Your task to perform on an android device: Empty the shopping cart on target. Search for bose soundlink mini on target, select the first entry, add it to the cart, then select checkout. Image 0: 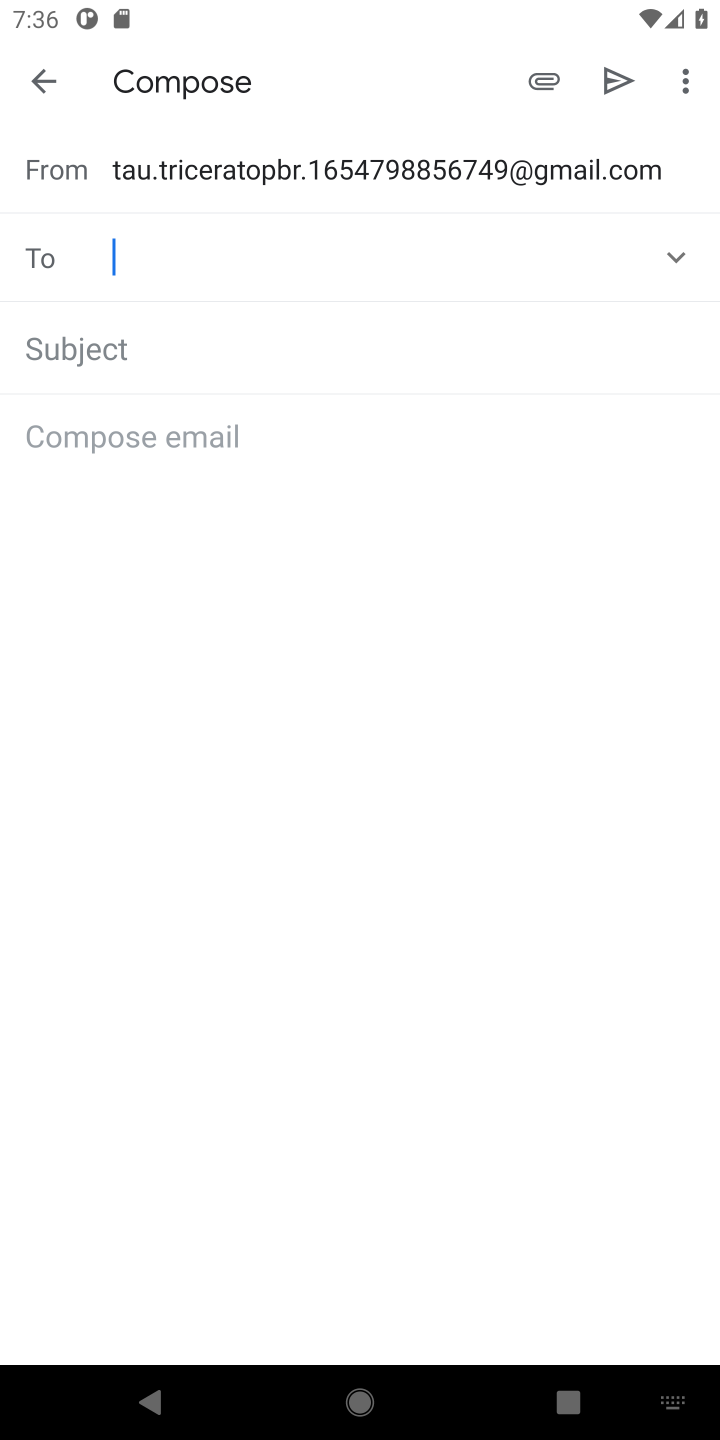
Step 0: press home button
Your task to perform on an android device: Empty the shopping cart on target. Search for bose soundlink mini on target, select the first entry, add it to the cart, then select checkout. Image 1: 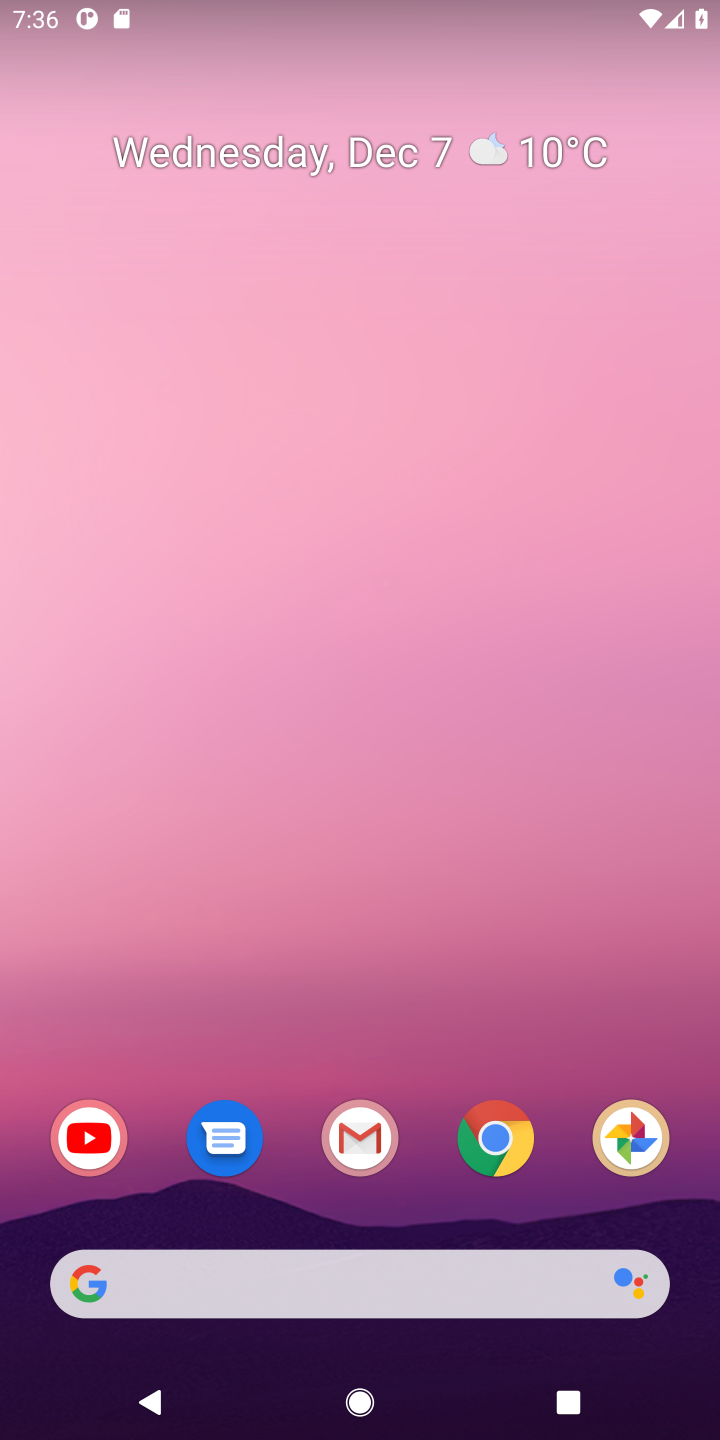
Step 1: click (147, 1287)
Your task to perform on an android device: Empty the shopping cart on target. Search for bose soundlink mini on target, select the first entry, add it to the cart, then select checkout. Image 2: 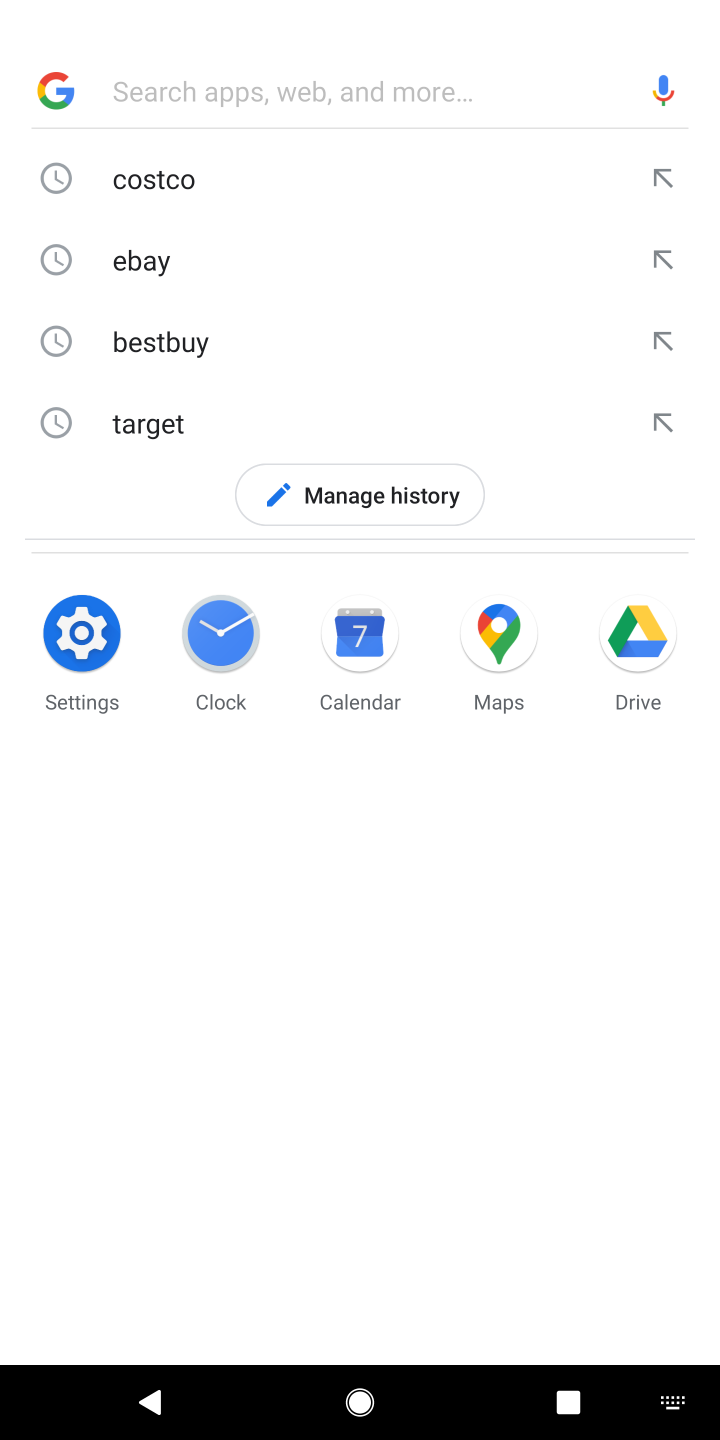
Step 2: type "target"
Your task to perform on an android device: Empty the shopping cart on target. Search for bose soundlink mini on target, select the first entry, add it to the cart, then select checkout. Image 3: 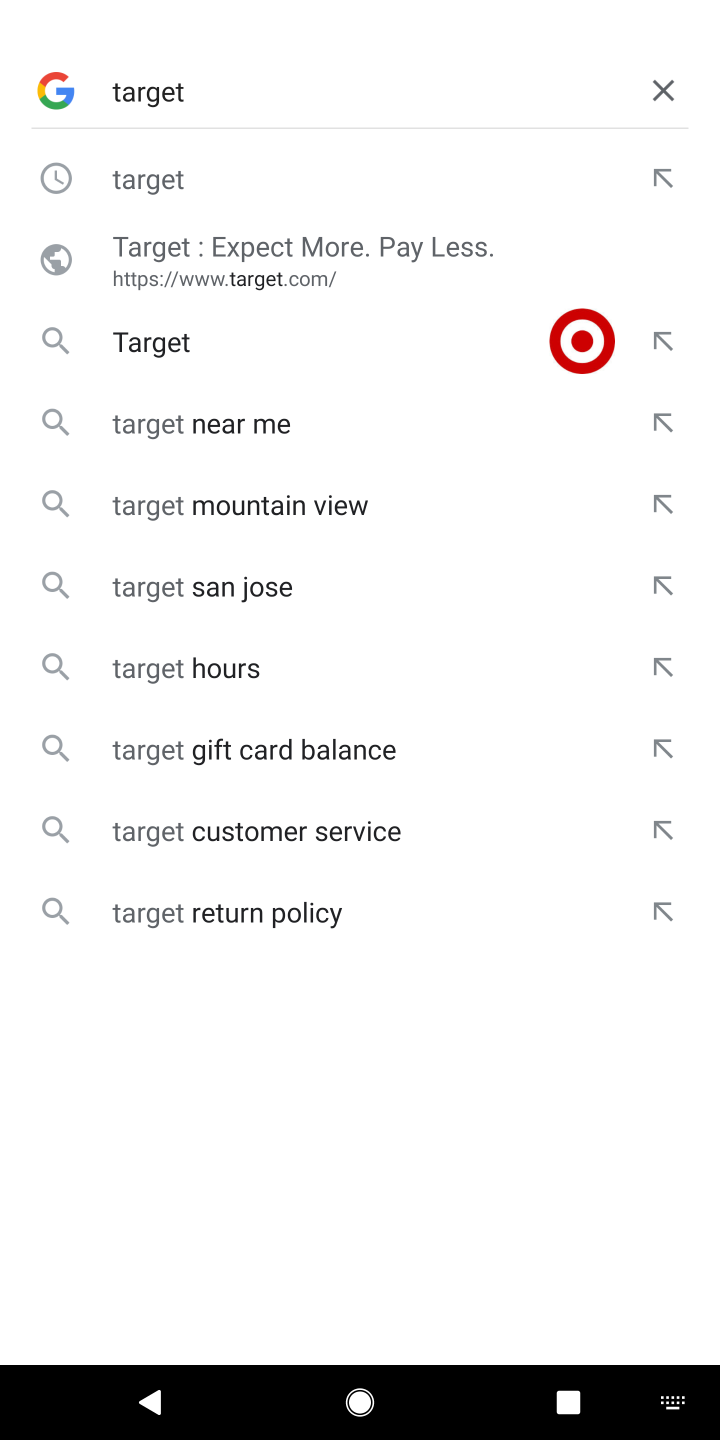
Step 3: press enter
Your task to perform on an android device: Empty the shopping cart on target. Search for bose soundlink mini on target, select the first entry, add it to the cart, then select checkout. Image 4: 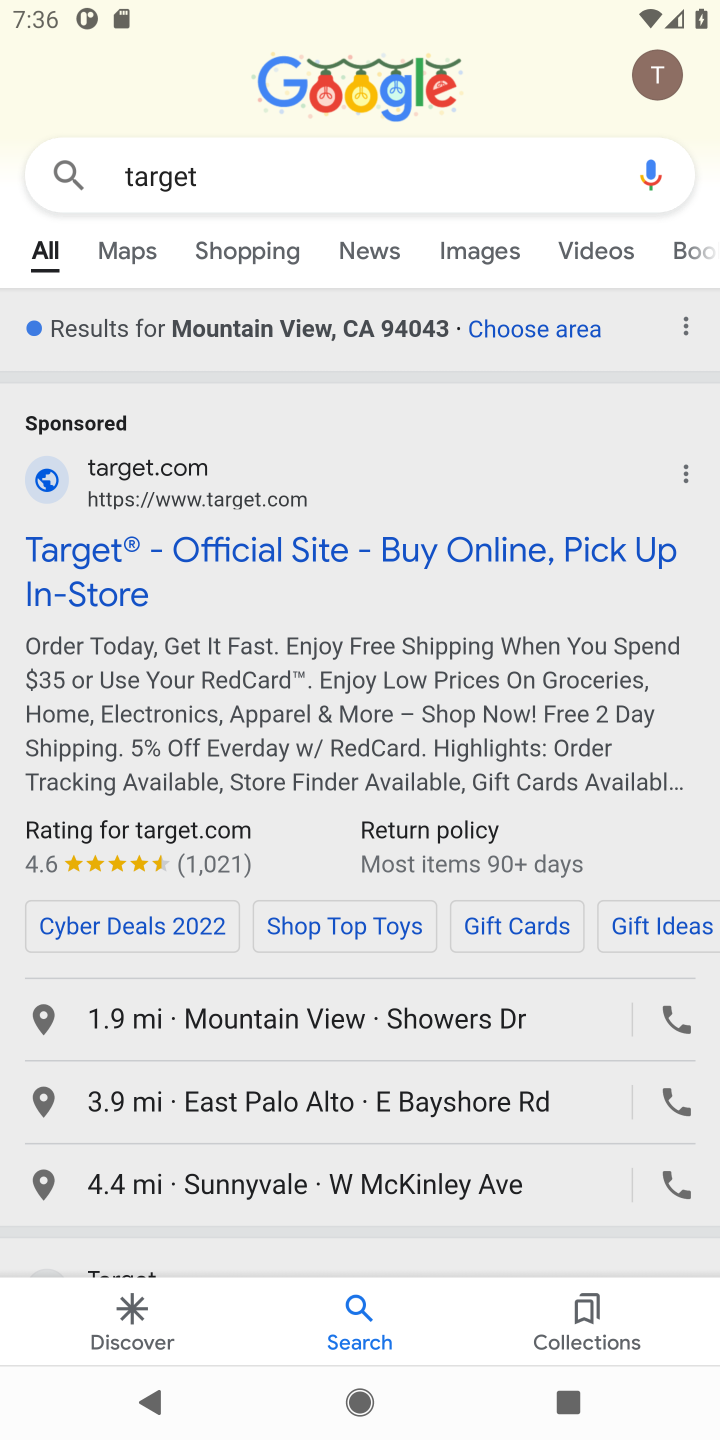
Step 4: click (345, 554)
Your task to perform on an android device: Empty the shopping cart on target. Search for bose soundlink mini on target, select the first entry, add it to the cart, then select checkout. Image 5: 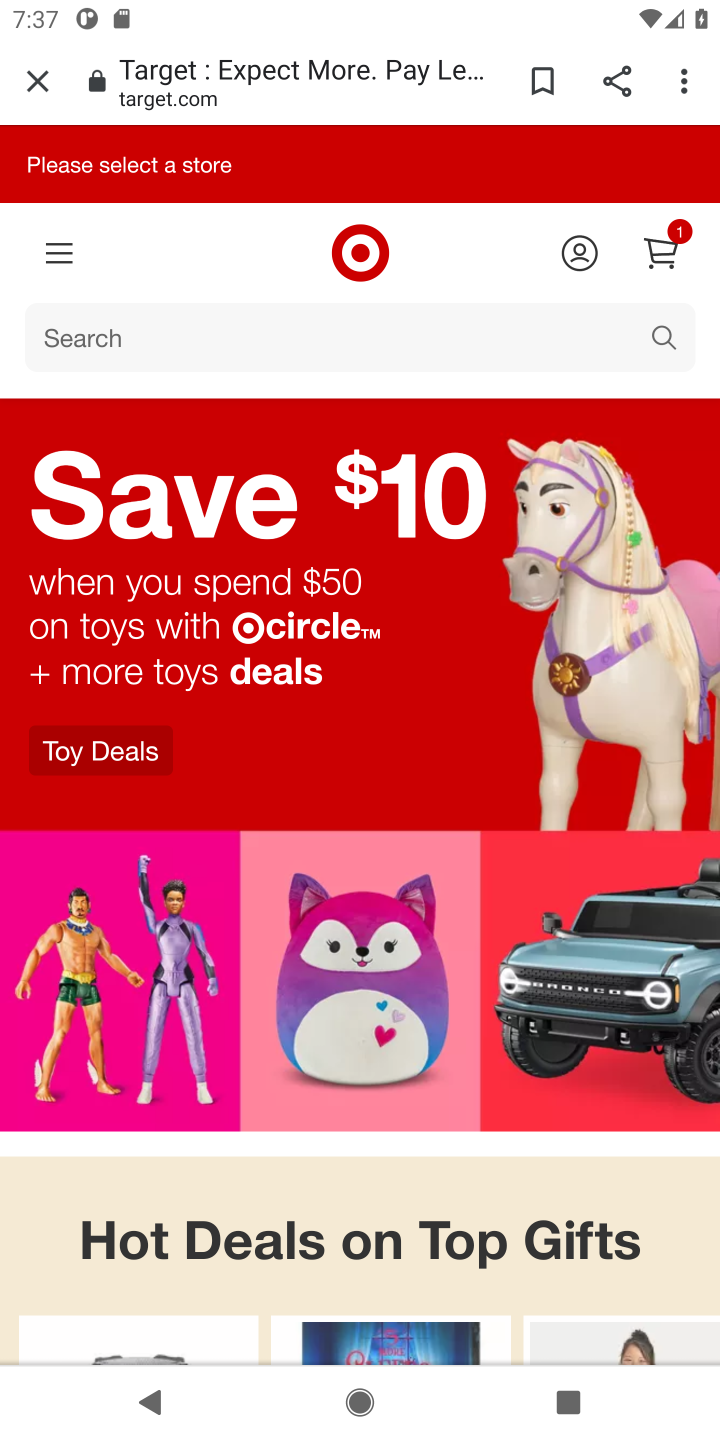
Step 5: click (660, 241)
Your task to perform on an android device: Empty the shopping cart on target. Search for bose soundlink mini on target, select the first entry, add it to the cart, then select checkout. Image 6: 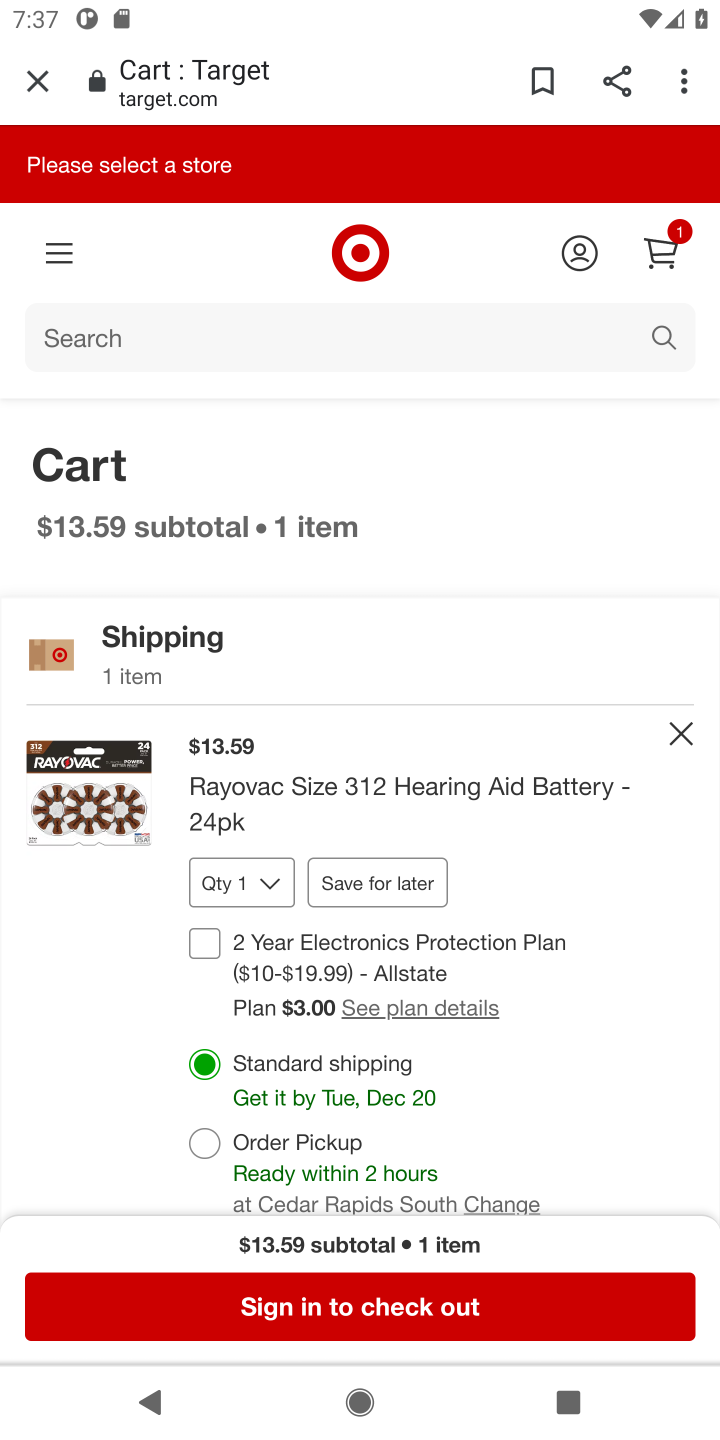
Step 6: click (681, 736)
Your task to perform on an android device: Empty the shopping cart on target. Search for bose soundlink mini on target, select the first entry, add it to the cart, then select checkout. Image 7: 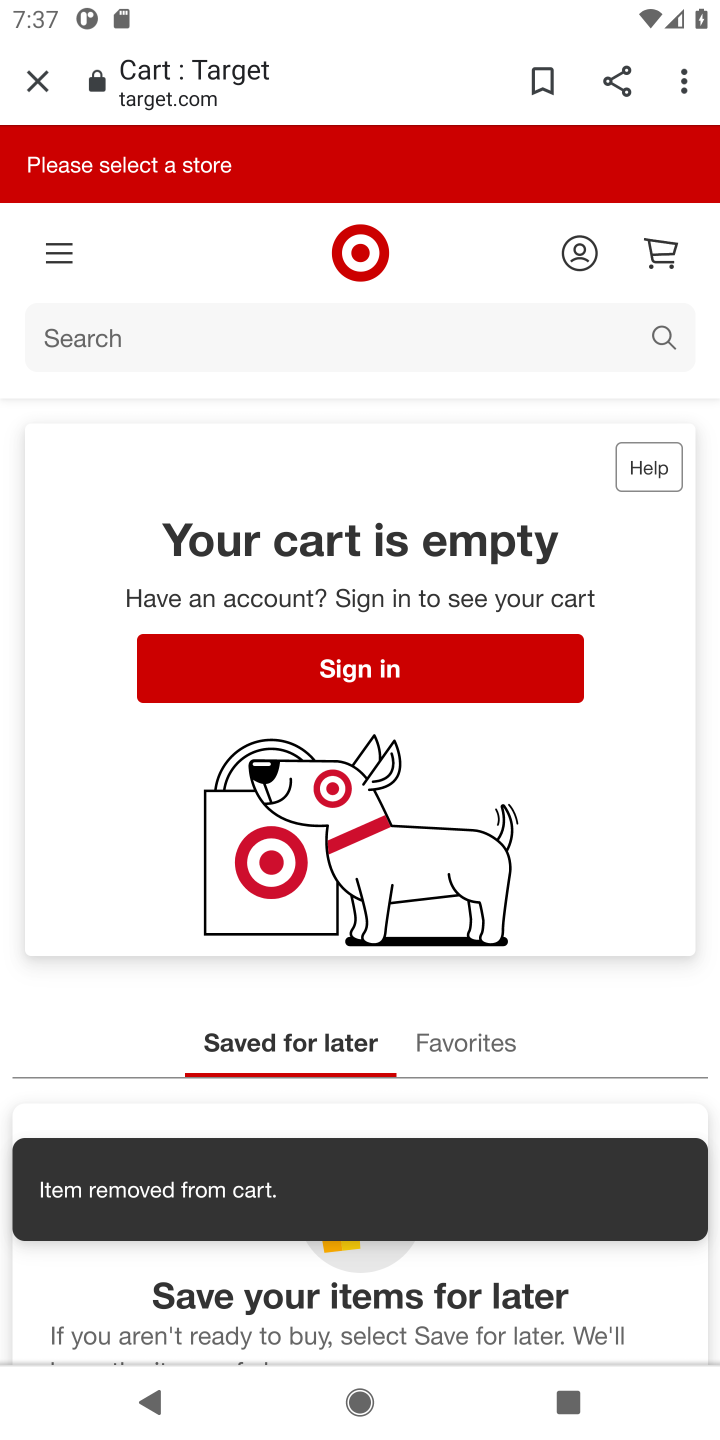
Step 7: click (91, 322)
Your task to perform on an android device: Empty the shopping cart on target. Search for bose soundlink mini on target, select the first entry, add it to the cart, then select checkout. Image 8: 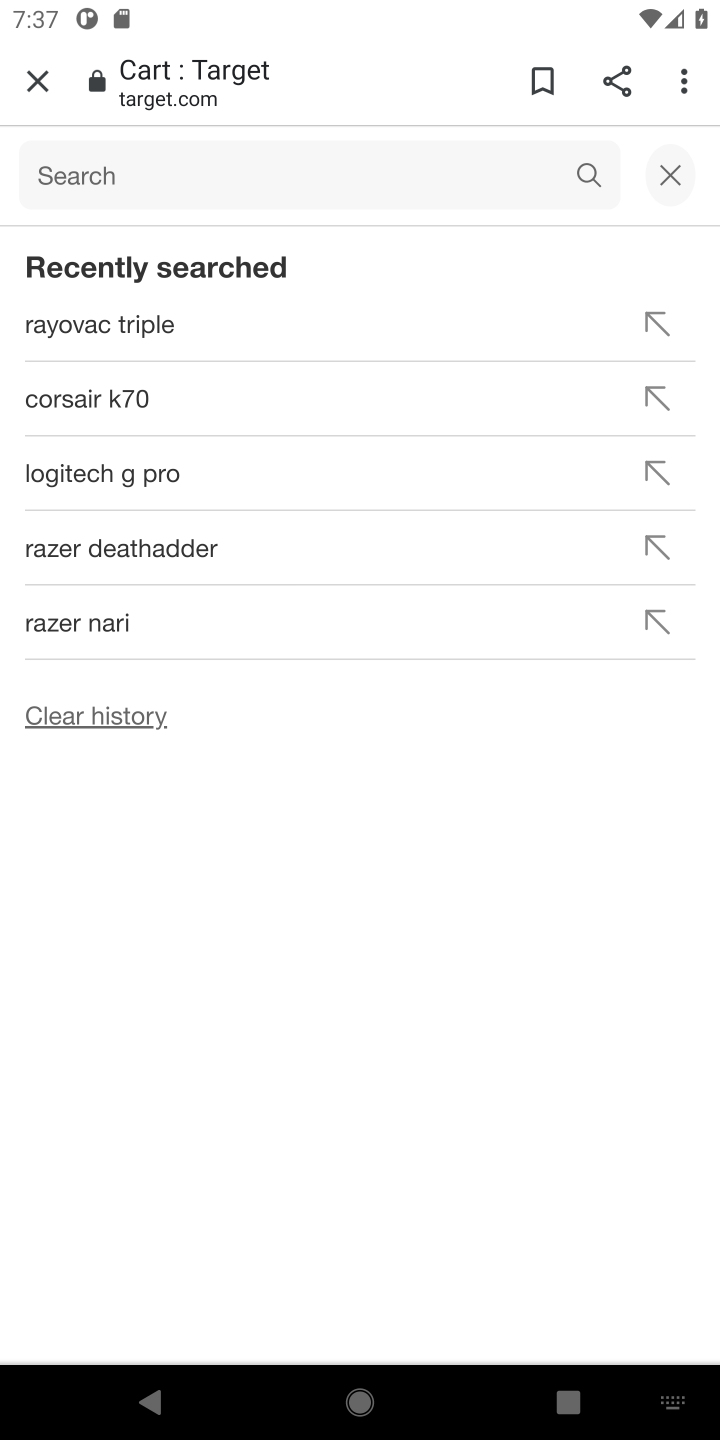
Step 8: type "bose soundlink mini"
Your task to perform on an android device: Empty the shopping cart on target. Search for bose soundlink mini on target, select the first entry, add it to the cart, then select checkout. Image 9: 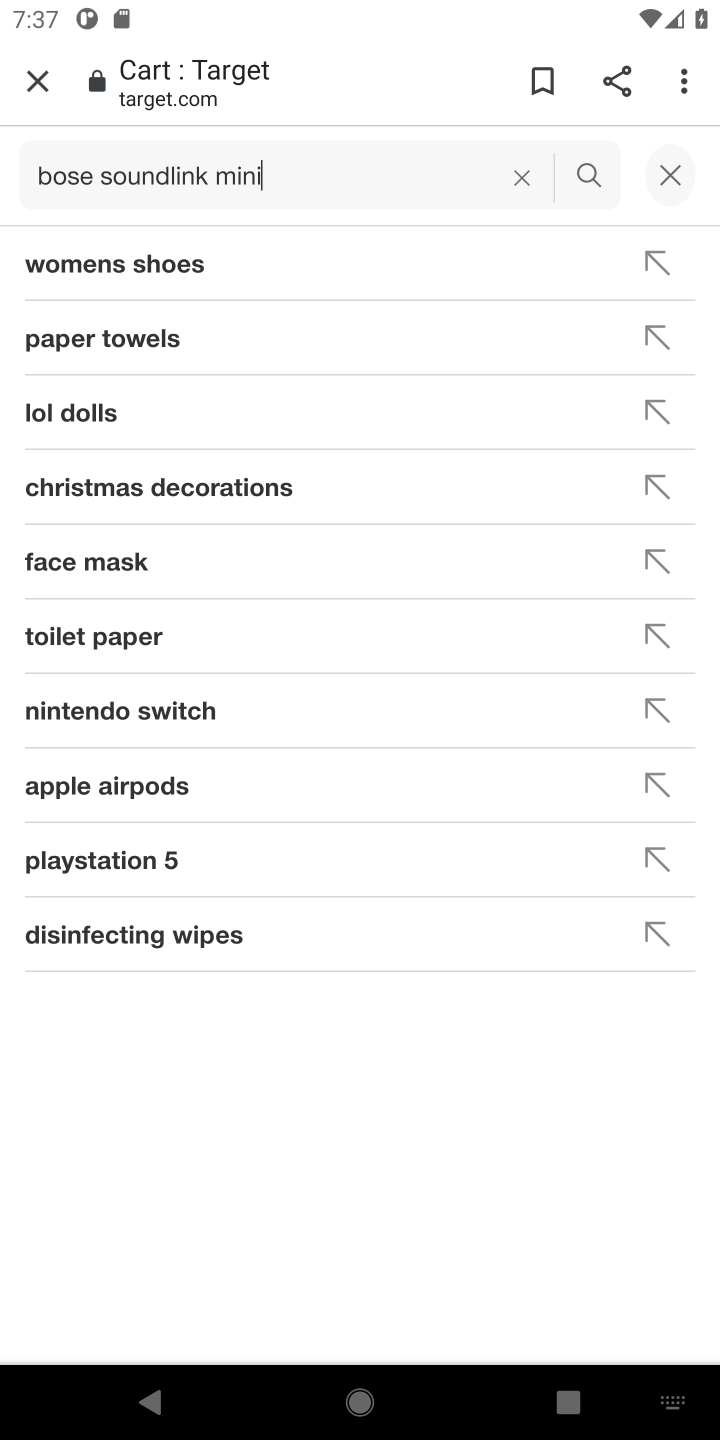
Step 9: press enter
Your task to perform on an android device: Empty the shopping cart on target. Search for bose soundlink mini on target, select the first entry, add it to the cart, then select checkout. Image 10: 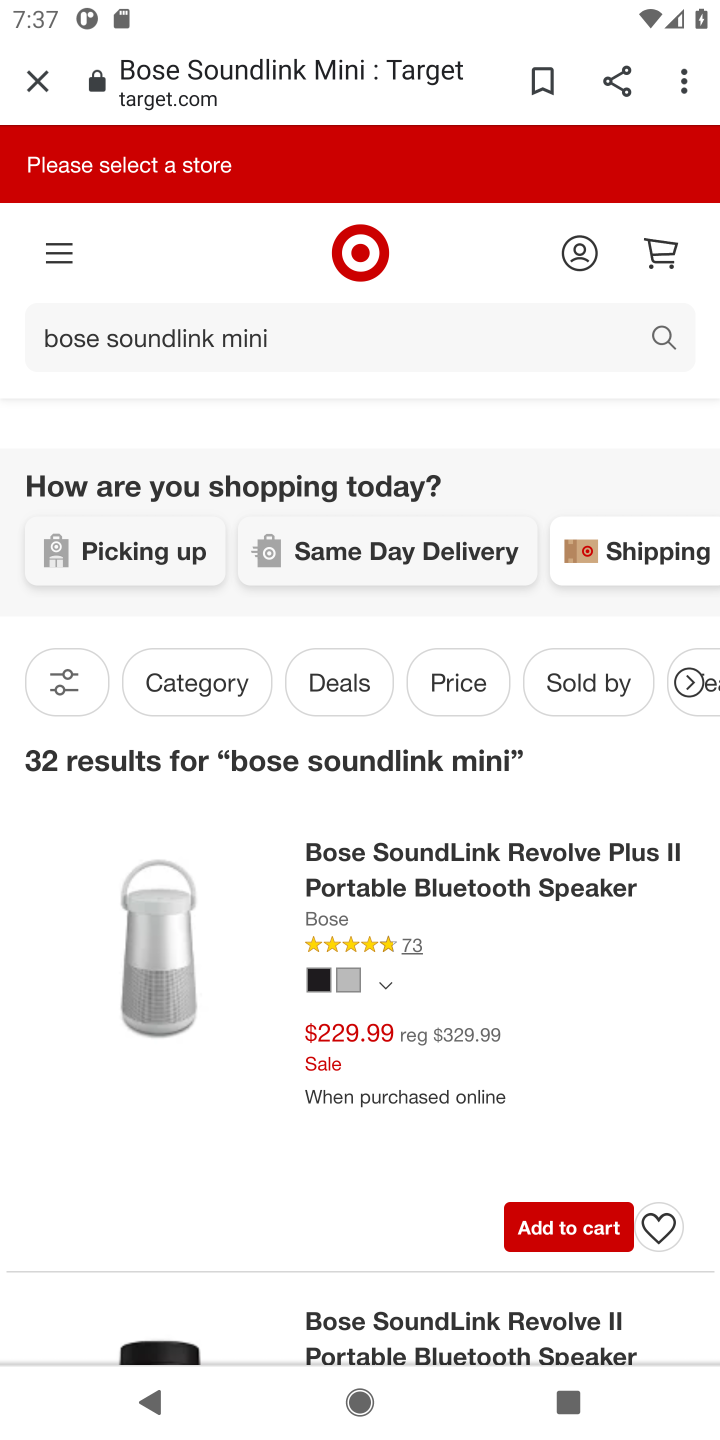
Step 10: click (527, 1240)
Your task to perform on an android device: Empty the shopping cart on target. Search for bose soundlink mini on target, select the first entry, add it to the cart, then select checkout. Image 11: 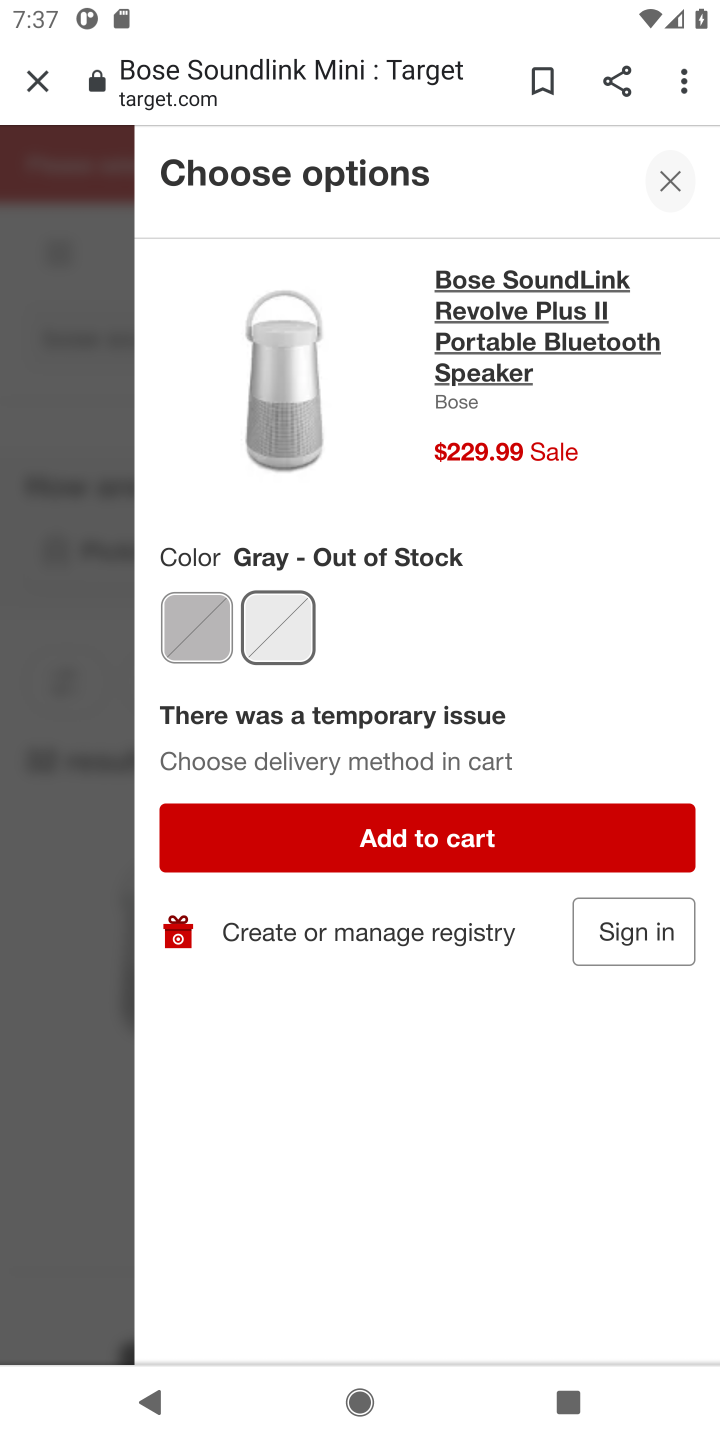
Step 11: click (458, 849)
Your task to perform on an android device: Empty the shopping cart on target. Search for bose soundlink mini on target, select the first entry, add it to the cart, then select checkout. Image 12: 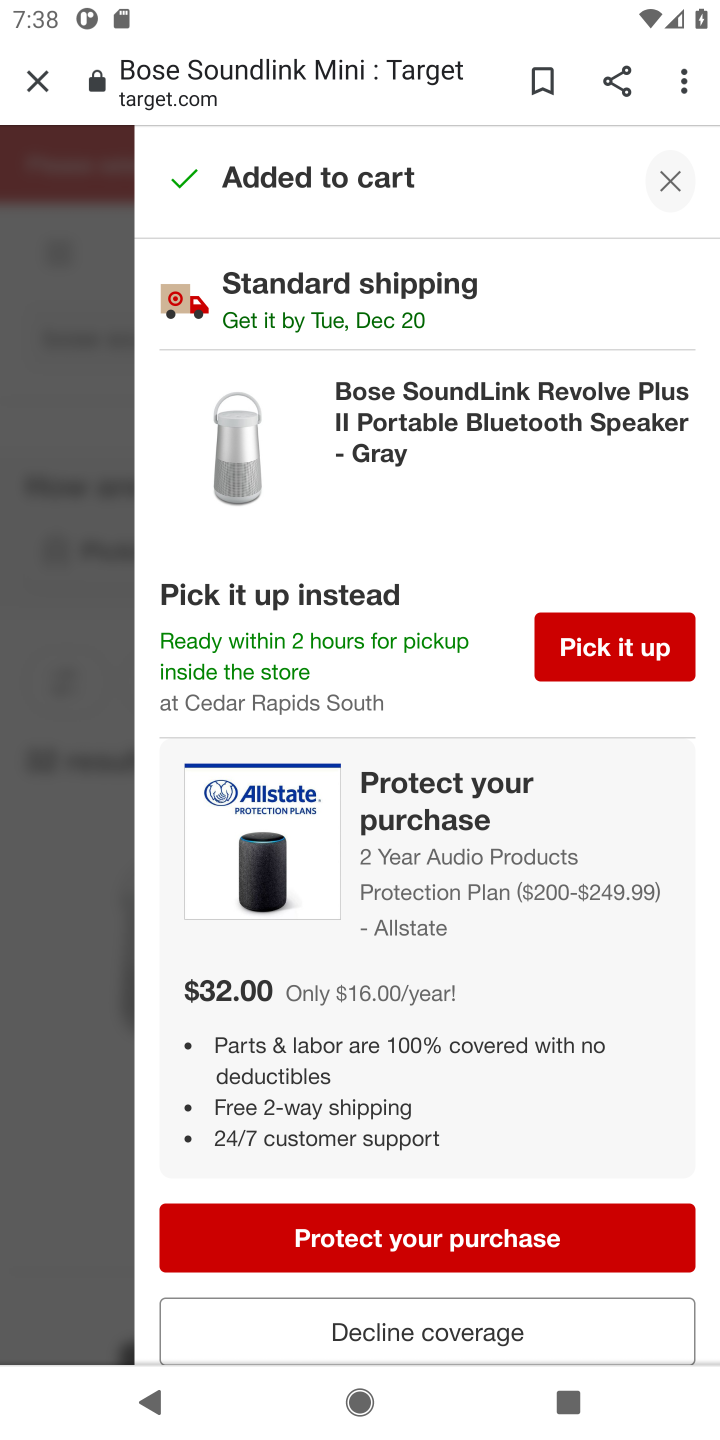
Step 12: task complete